Your task to perform on an android device: turn off improve location accuracy Image 0: 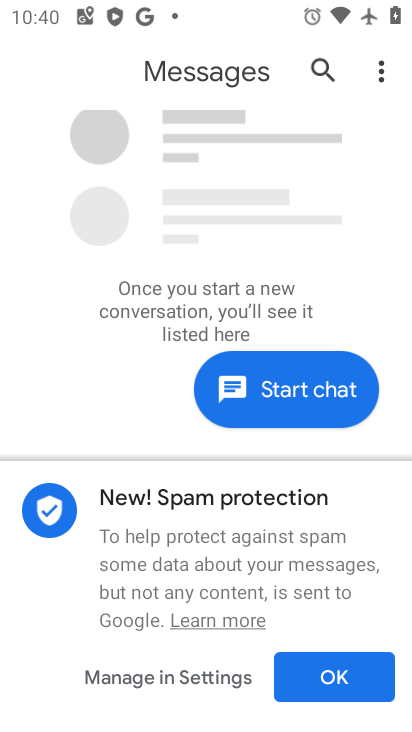
Step 0: press home button
Your task to perform on an android device: turn off improve location accuracy Image 1: 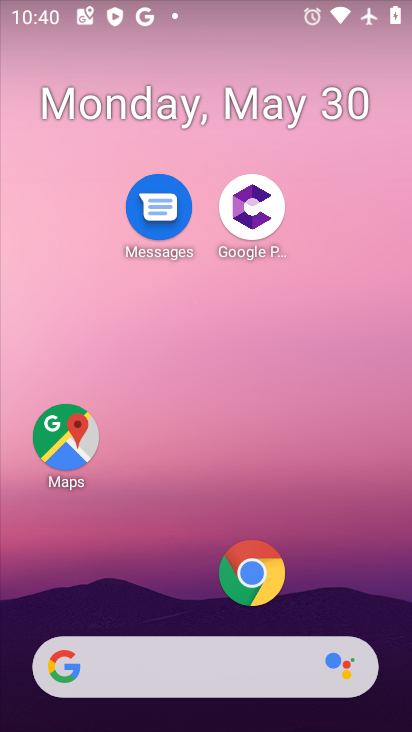
Step 1: drag from (174, 588) to (267, 133)
Your task to perform on an android device: turn off improve location accuracy Image 2: 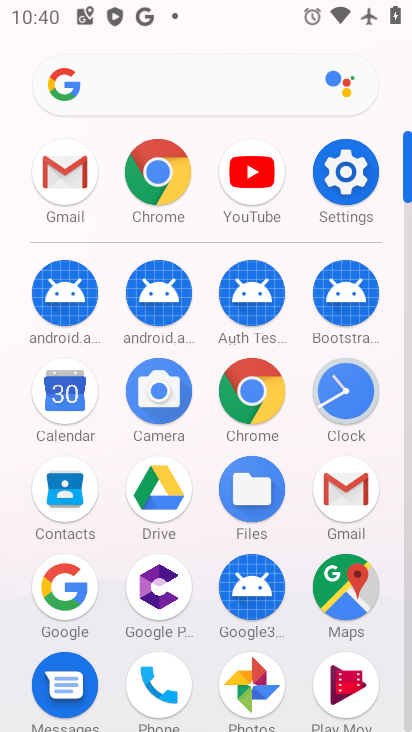
Step 2: click (349, 179)
Your task to perform on an android device: turn off improve location accuracy Image 3: 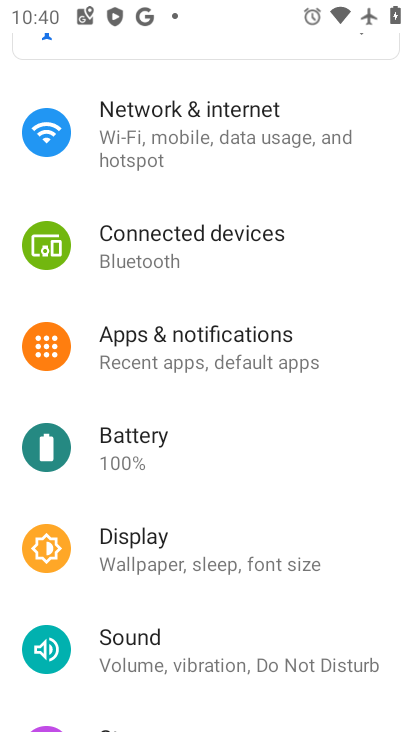
Step 3: drag from (174, 572) to (228, 227)
Your task to perform on an android device: turn off improve location accuracy Image 4: 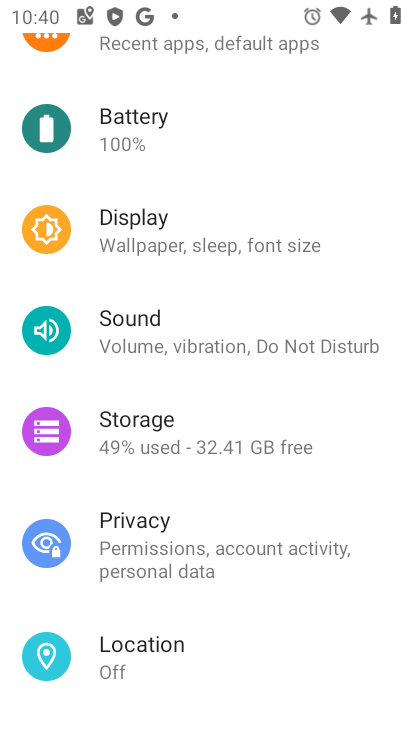
Step 4: click (193, 665)
Your task to perform on an android device: turn off improve location accuracy Image 5: 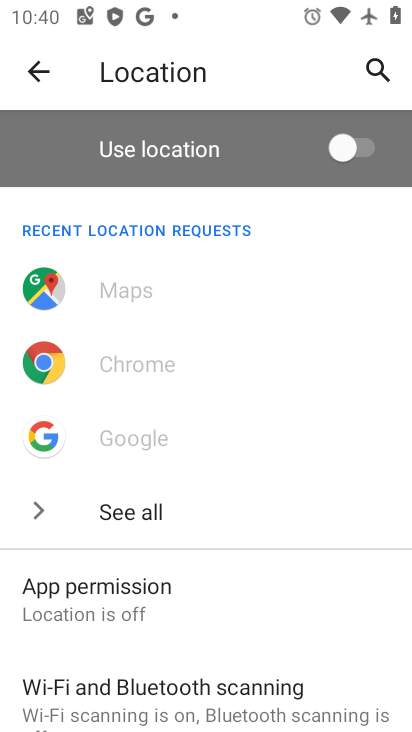
Step 5: drag from (196, 588) to (204, 309)
Your task to perform on an android device: turn off improve location accuracy Image 6: 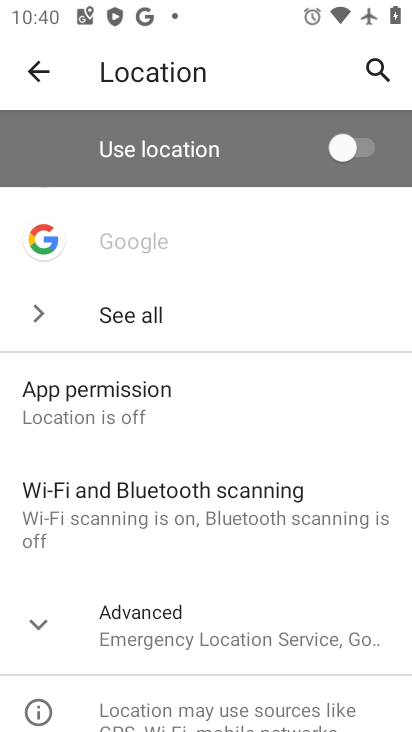
Step 6: click (173, 624)
Your task to perform on an android device: turn off improve location accuracy Image 7: 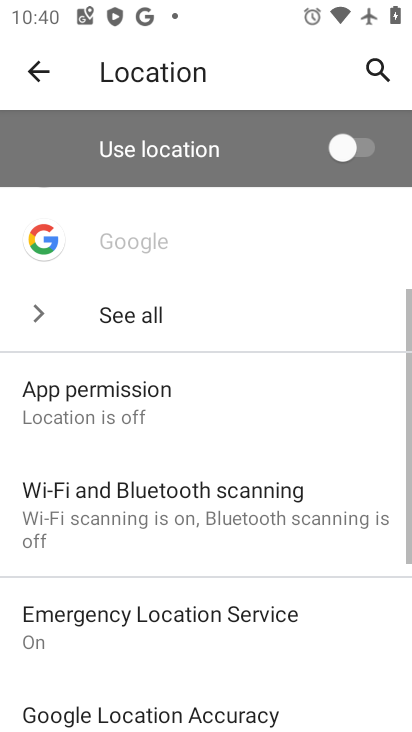
Step 7: drag from (166, 618) to (168, 389)
Your task to perform on an android device: turn off improve location accuracy Image 8: 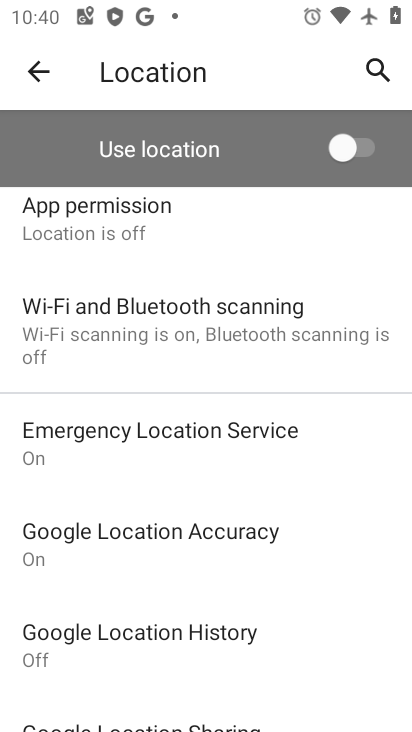
Step 8: click (235, 575)
Your task to perform on an android device: turn off improve location accuracy Image 9: 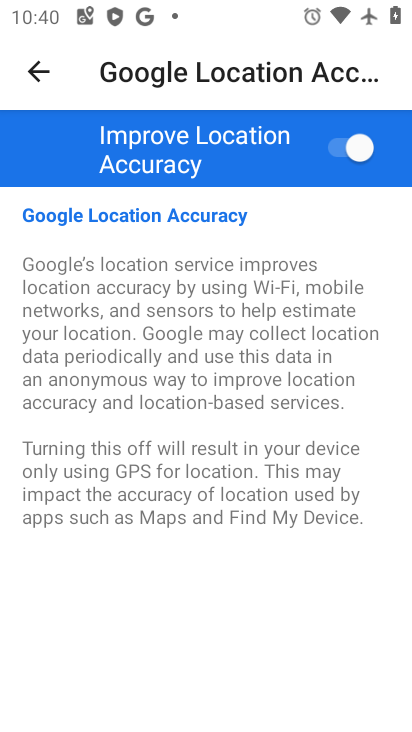
Step 9: click (340, 148)
Your task to perform on an android device: turn off improve location accuracy Image 10: 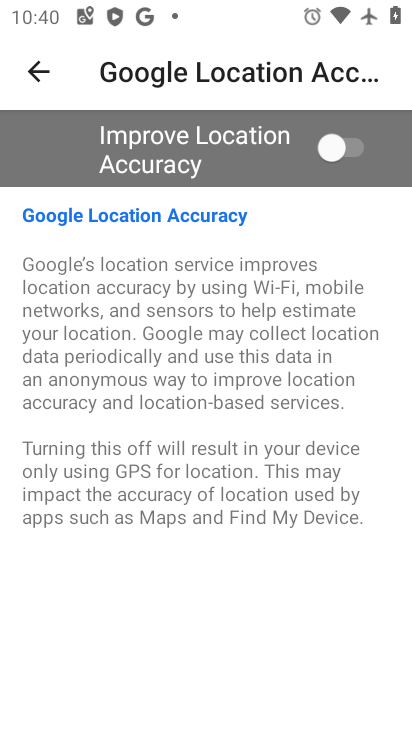
Step 10: task complete